Your task to perform on an android device: add a contact in the contacts app Image 0: 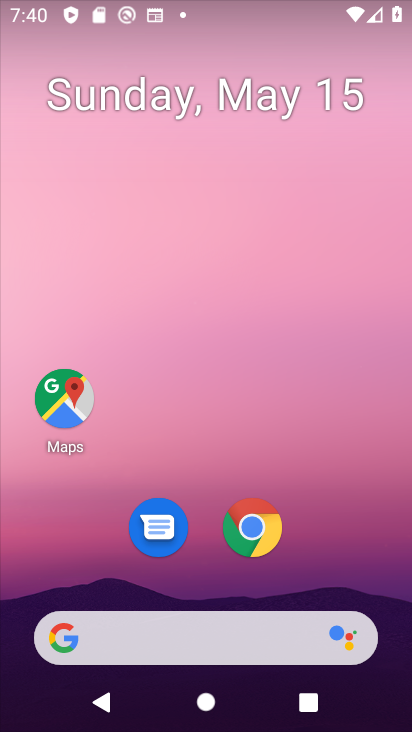
Step 0: drag from (208, 645) to (306, 117)
Your task to perform on an android device: add a contact in the contacts app Image 1: 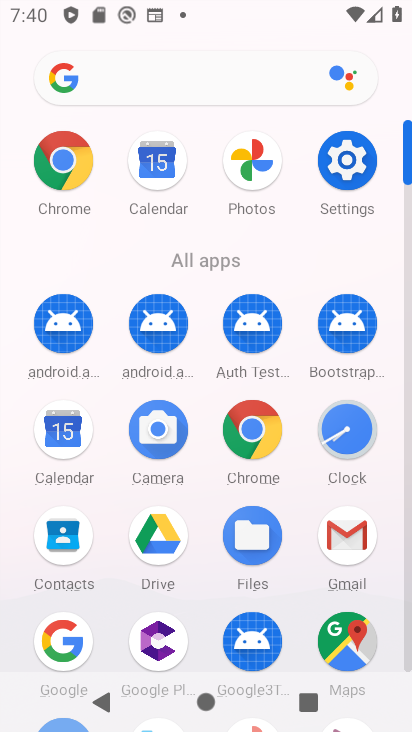
Step 1: click (68, 539)
Your task to perform on an android device: add a contact in the contacts app Image 2: 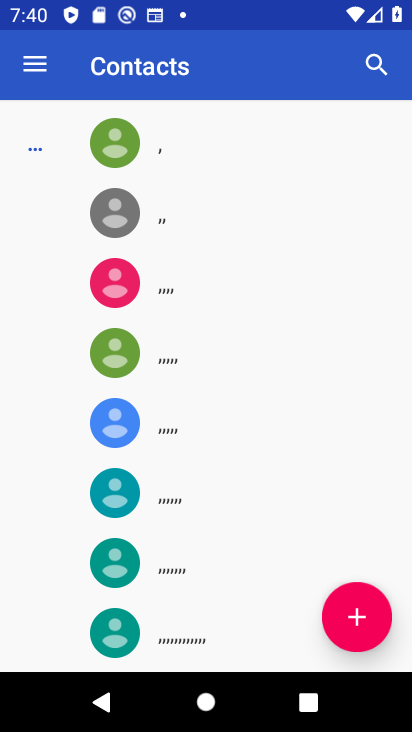
Step 2: click (366, 605)
Your task to perform on an android device: add a contact in the contacts app Image 3: 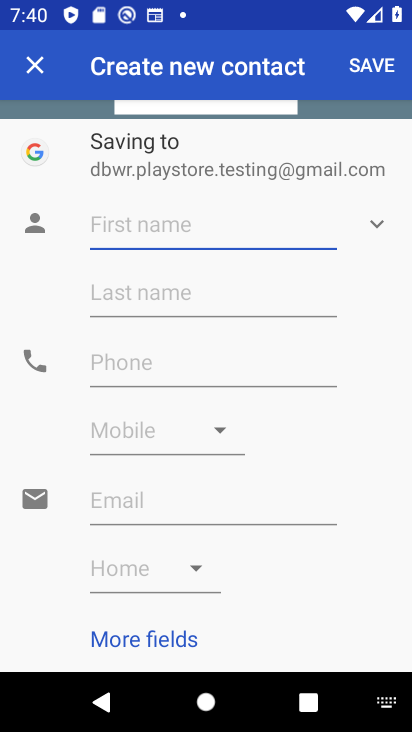
Step 3: type "xasww"
Your task to perform on an android device: add a contact in the contacts app Image 4: 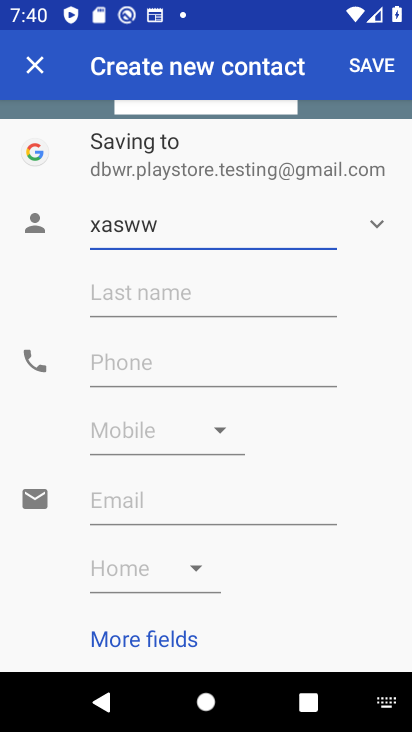
Step 4: click (139, 364)
Your task to perform on an android device: add a contact in the contacts app Image 5: 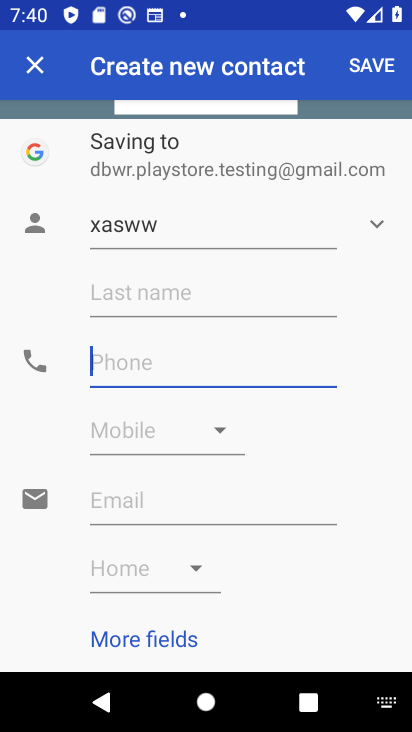
Step 5: type "1432"
Your task to perform on an android device: add a contact in the contacts app Image 6: 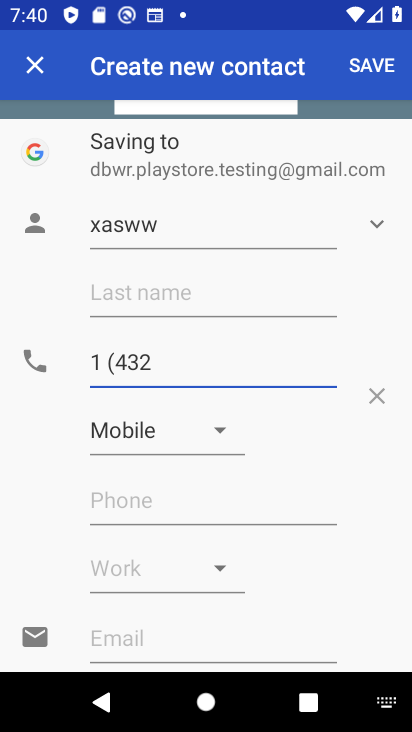
Step 6: click (375, 61)
Your task to perform on an android device: add a contact in the contacts app Image 7: 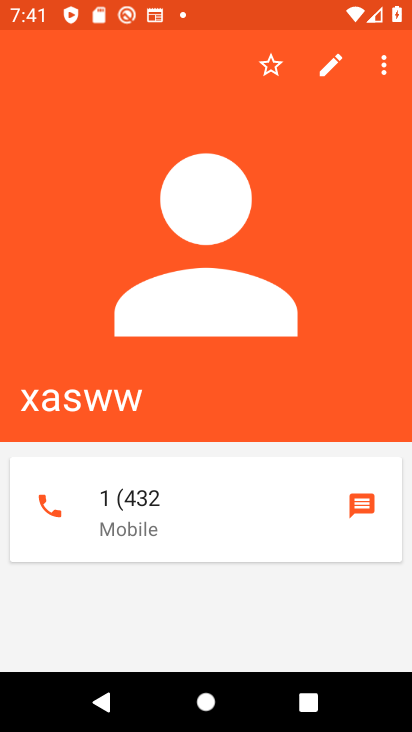
Step 7: task complete